Your task to perform on an android device: Open CNN.com Image 0: 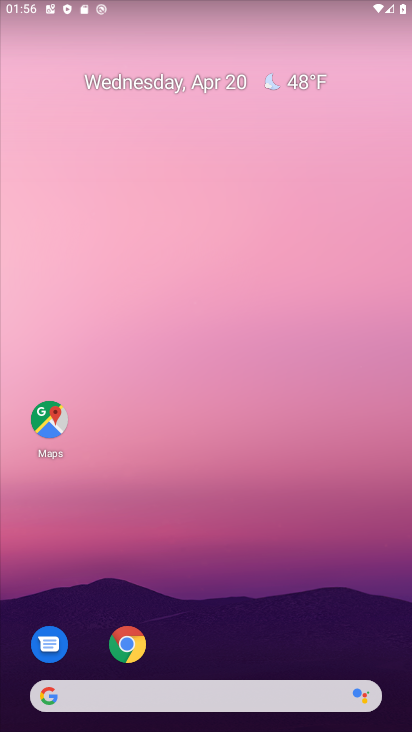
Step 0: click (135, 647)
Your task to perform on an android device: Open CNN.com Image 1: 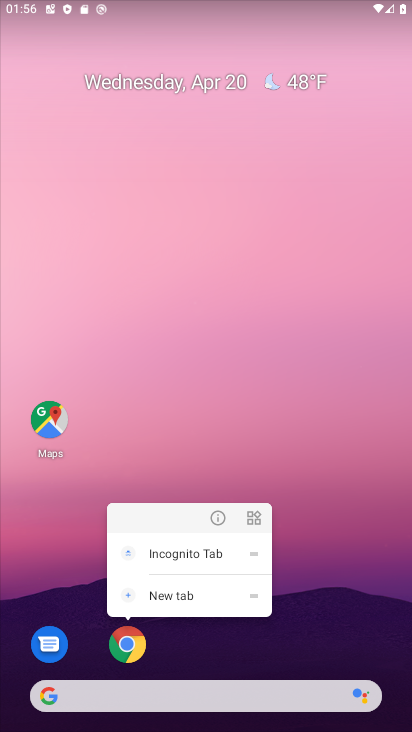
Step 1: click (135, 647)
Your task to perform on an android device: Open CNN.com Image 2: 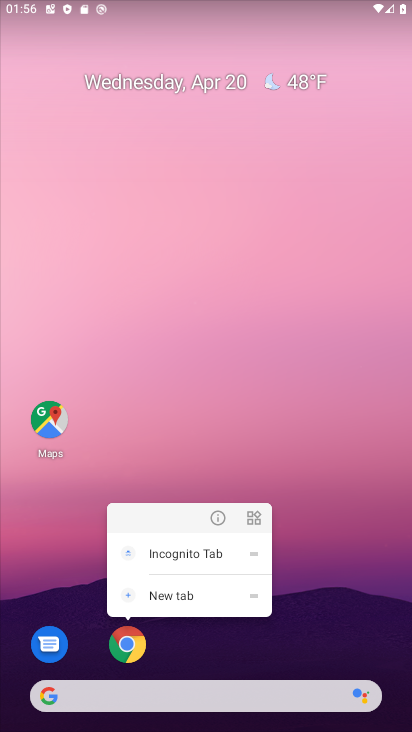
Step 2: click (132, 647)
Your task to perform on an android device: Open CNN.com Image 3: 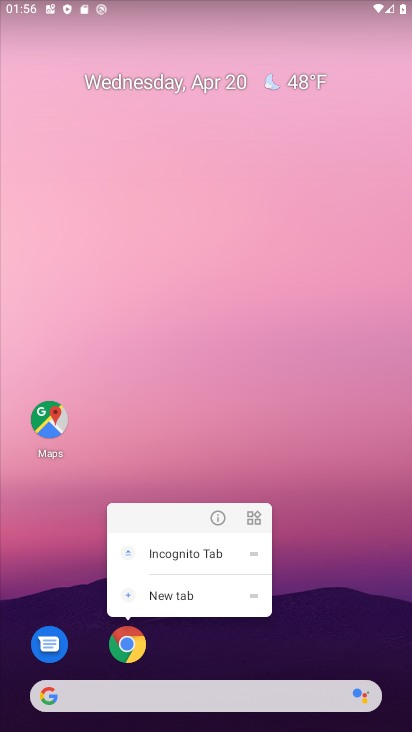
Step 3: click (117, 636)
Your task to perform on an android device: Open CNN.com Image 4: 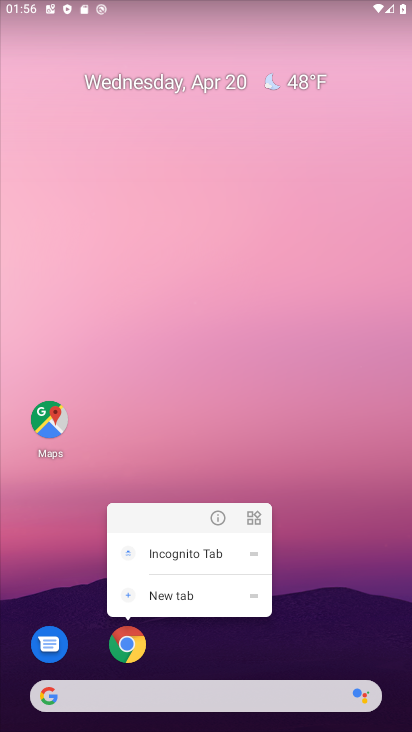
Step 4: click (119, 648)
Your task to perform on an android device: Open CNN.com Image 5: 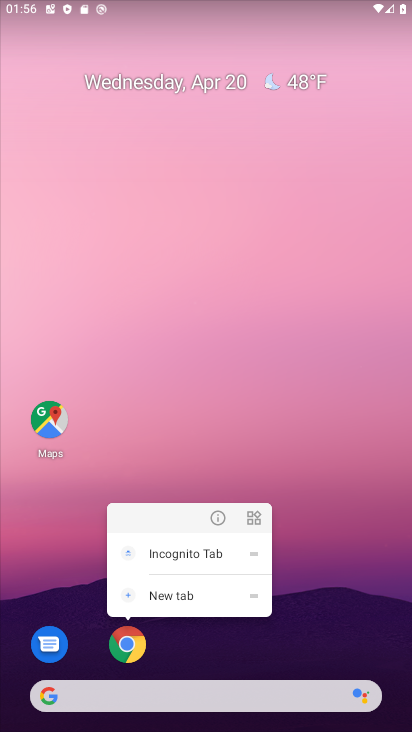
Step 5: click (124, 648)
Your task to perform on an android device: Open CNN.com Image 6: 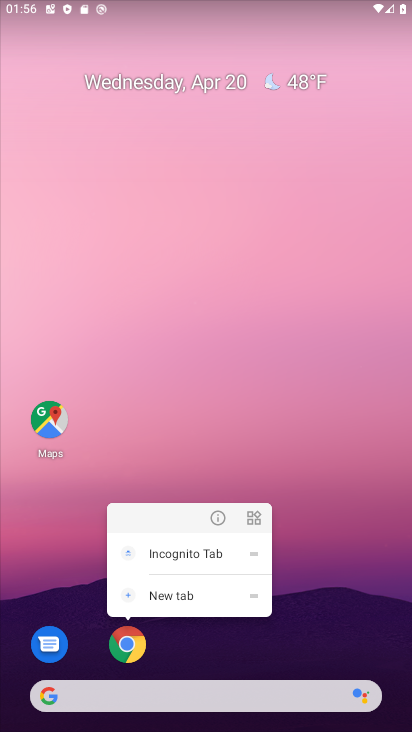
Step 6: click (127, 646)
Your task to perform on an android device: Open CNN.com Image 7: 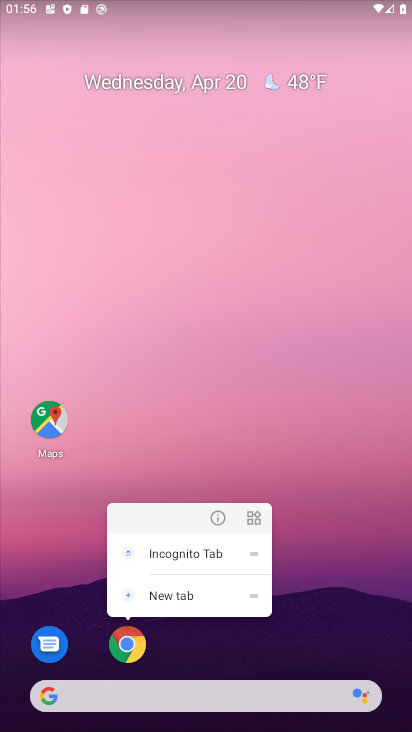
Step 7: click (131, 649)
Your task to perform on an android device: Open CNN.com Image 8: 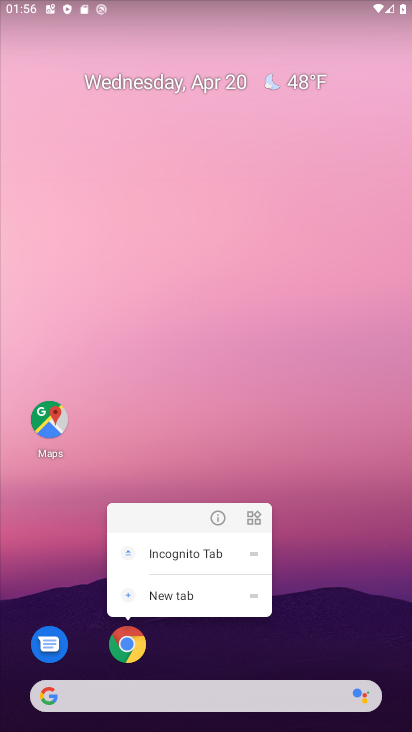
Step 8: drag from (288, 628) to (404, 154)
Your task to perform on an android device: Open CNN.com Image 9: 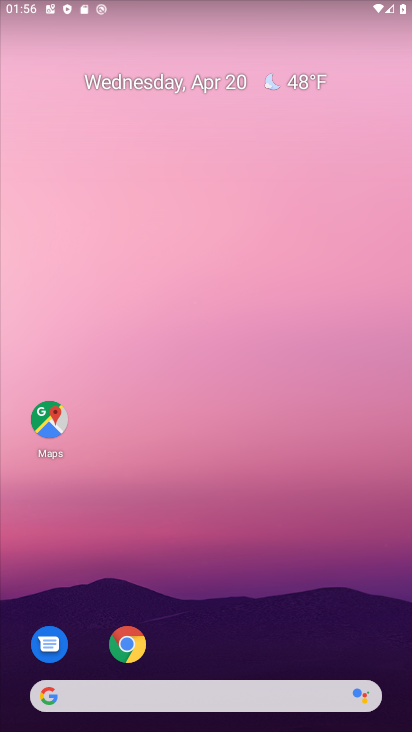
Step 9: drag from (201, 640) to (360, 91)
Your task to perform on an android device: Open CNN.com Image 10: 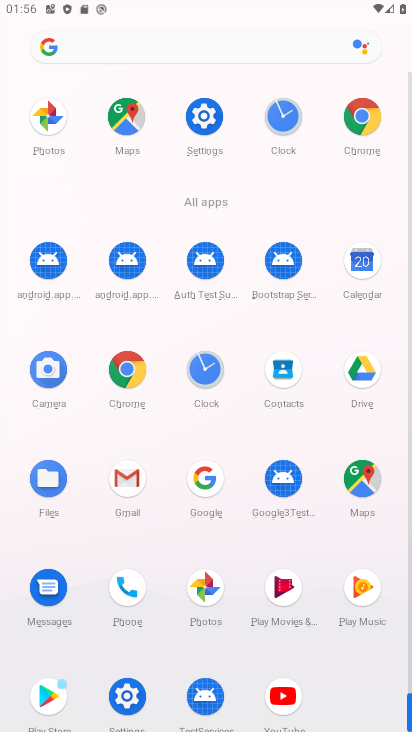
Step 10: click (127, 366)
Your task to perform on an android device: Open CNN.com Image 11: 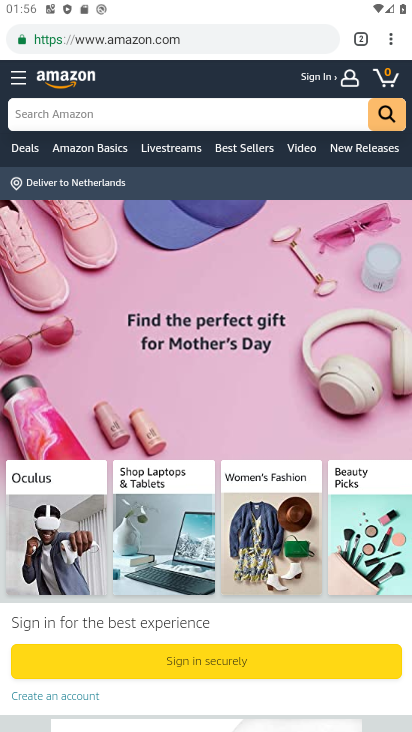
Step 11: click (241, 37)
Your task to perform on an android device: Open CNN.com Image 12: 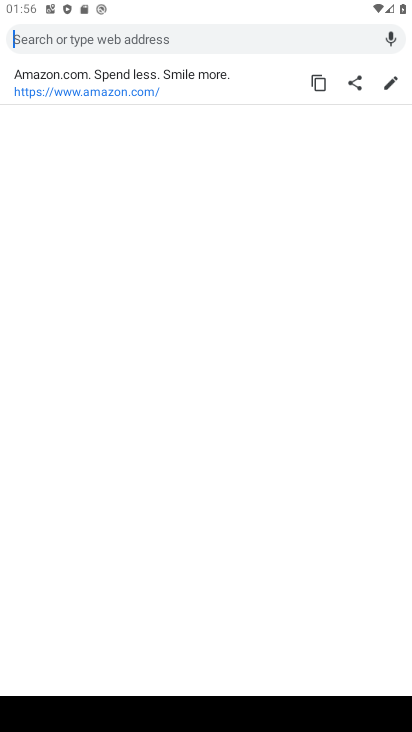
Step 12: type "CNN.com"
Your task to perform on an android device: Open CNN.com Image 13: 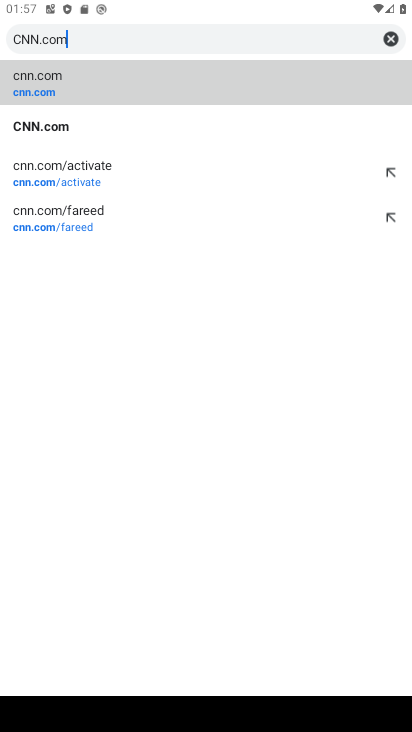
Step 13: click (79, 100)
Your task to perform on an android device: Open CNN.com Image 14: 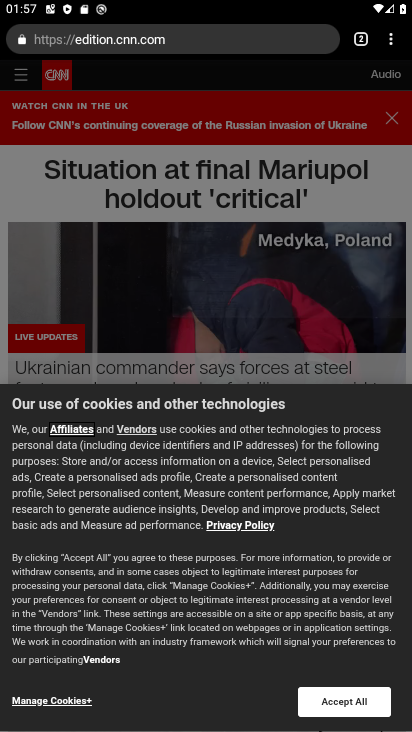
Step 14: click (377, 708)
Your task to perform on an android device: Open CNN.com Image 15: 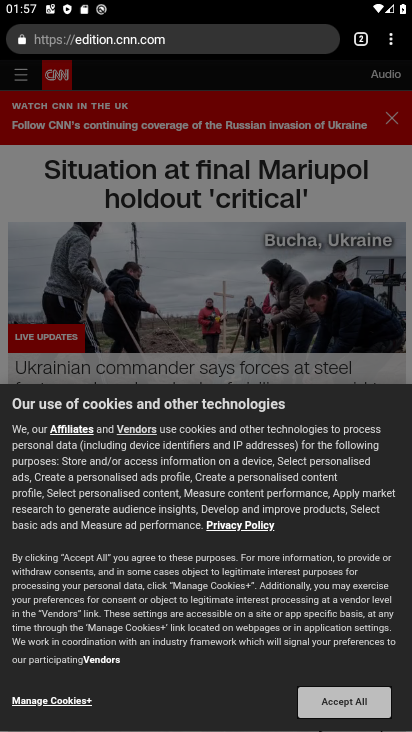
Step 15: click (367, 705)
Your task to perform on an android device: Open CNN.com Image 16: 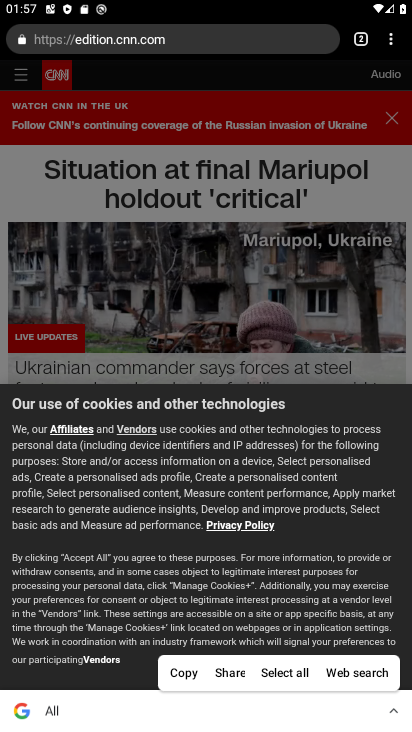
Step 16: drag from (395, 528) to (348, 698)
Your task to perform on an android device: Open CNN.com Image 17: 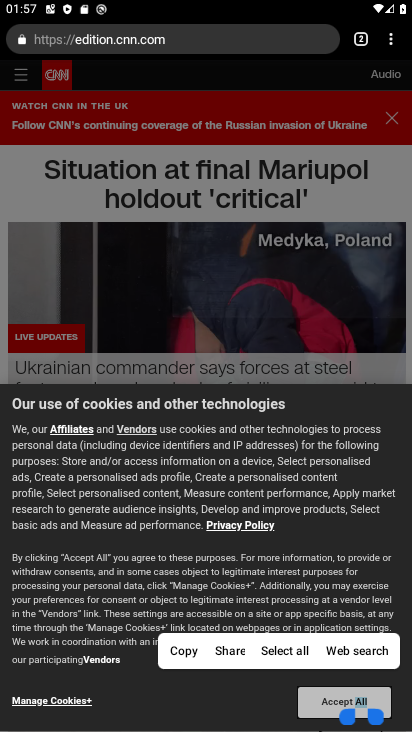
Step 17: click (354, 703)
Your task to perform on an android device: Open CNN.com Image 18: 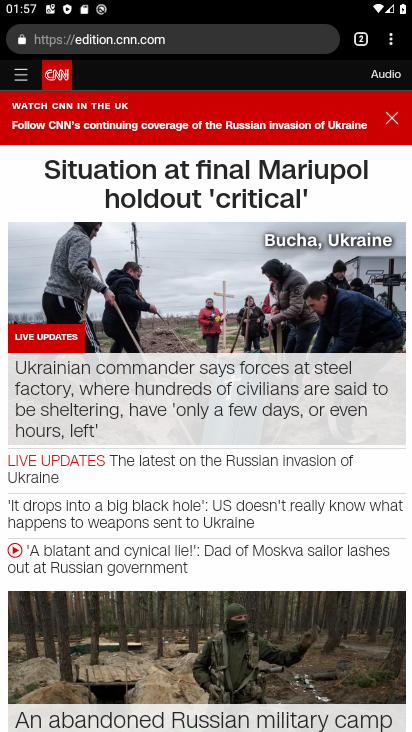
Step 18: task complete